Your task to perform on an android device: Show me the best rated power washer on Home Depot. Image 0: 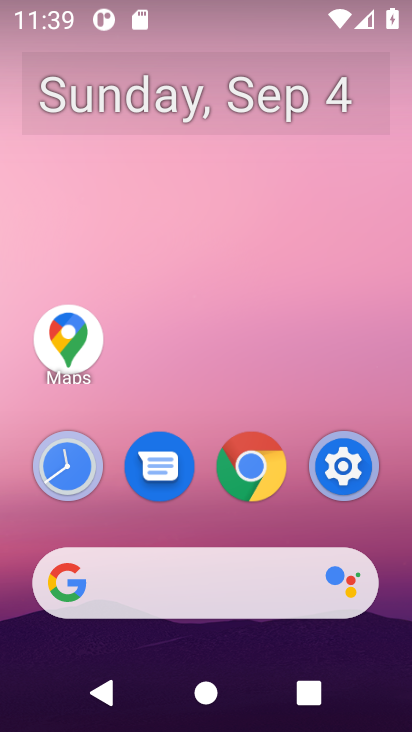
Step 0: click (222, 595)
Your task to perform on an android device: Show me the best rated power washer on Home Depot. Image 1: 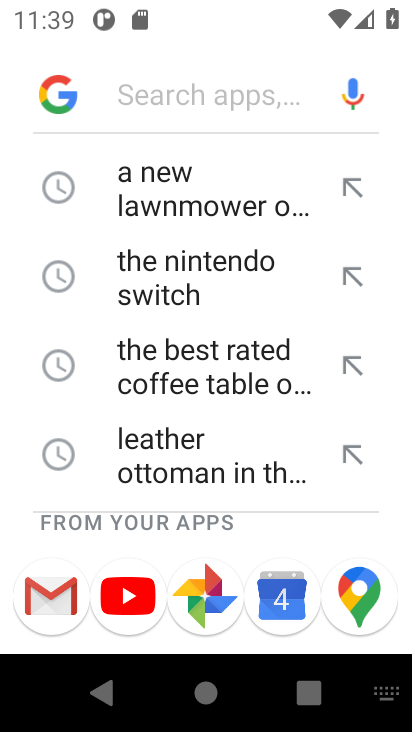
Step 1: drag from (355, 724) to (404, 730)
Your task to perform on an android device: Show me the best rated power washer on Home Depot. Image 2: 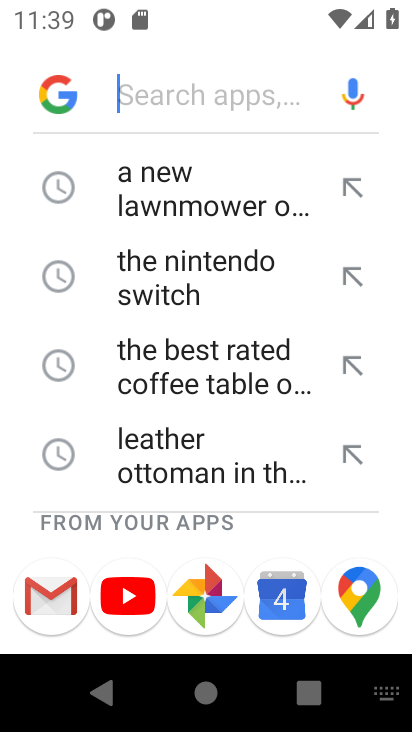
Step 2: type "best rated power washer on Home Depot."
Your task to perform on an android device: Show me the best rated power washer on Home Depot. Image 3: 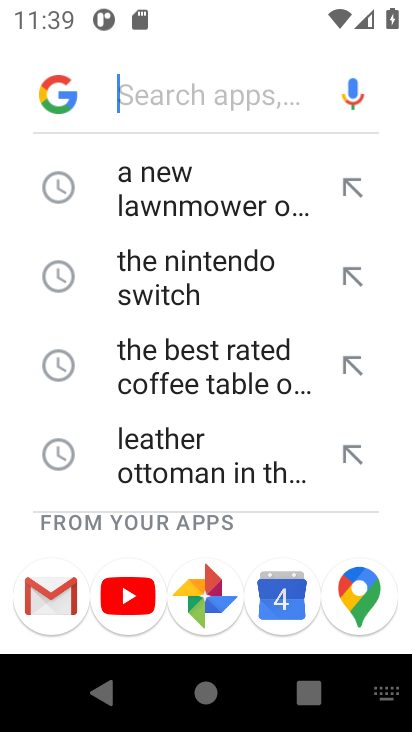
Step 3: drag from (404, 730) to (408, 215)
Your task to perform on an android device: Show me the best rated power washer on Home Depot. Image 4: 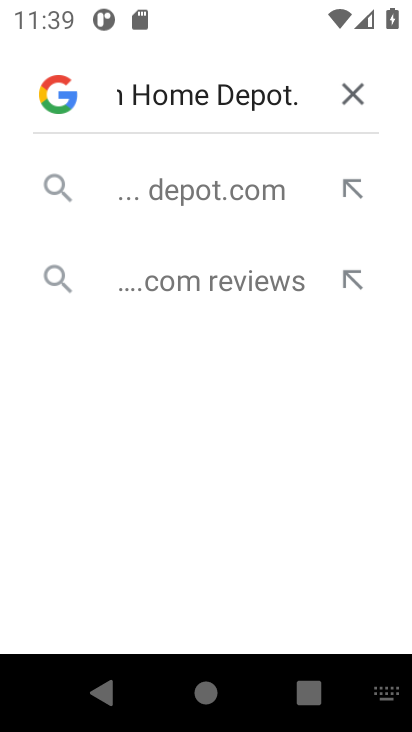
Step 4: click (272, 190)
Your task to perform on an android device: Show me the best rated power washer on Home Depot. Image 5: 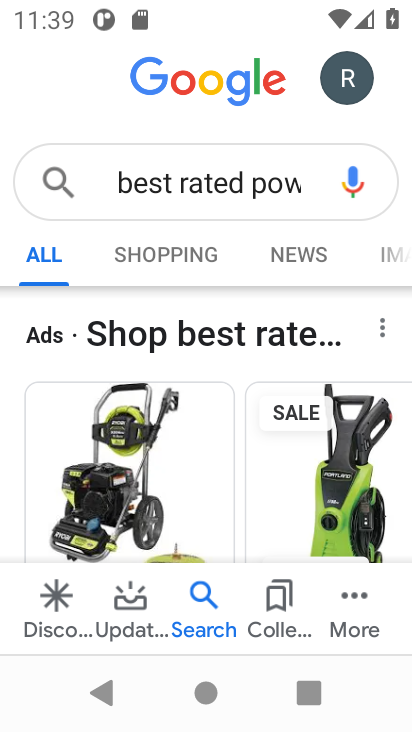
Step 5: task complete